Your task to perform on an android device: What's the weather? Image 0: 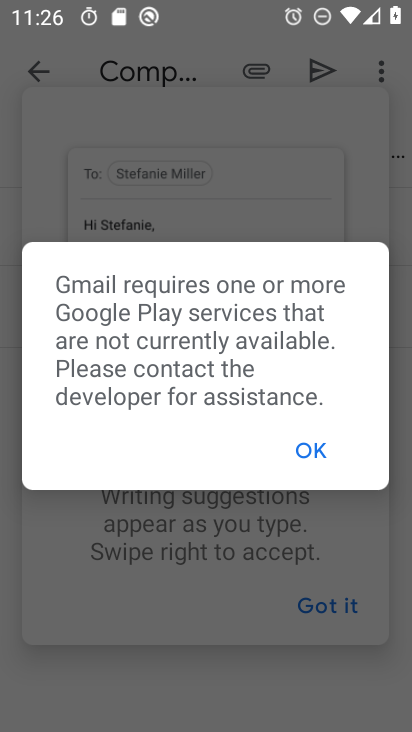
Step 0: press home button
Your task to perform on an android device: What's the weather? Image 1: 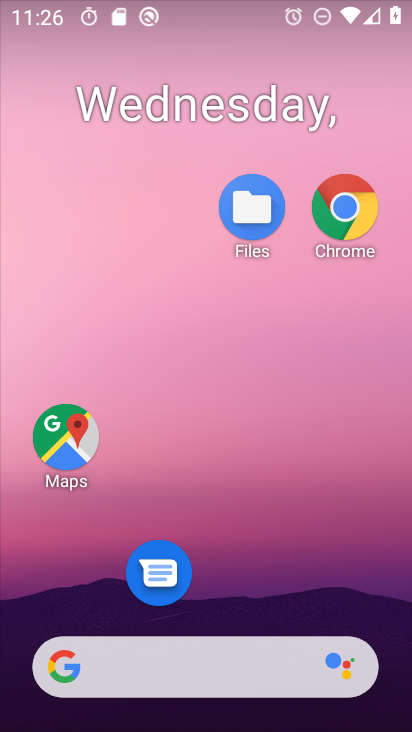
Step 1: drag from (218, 492) to (160, 45)
Your task to perform on an android device: What's the weather? Image 2: 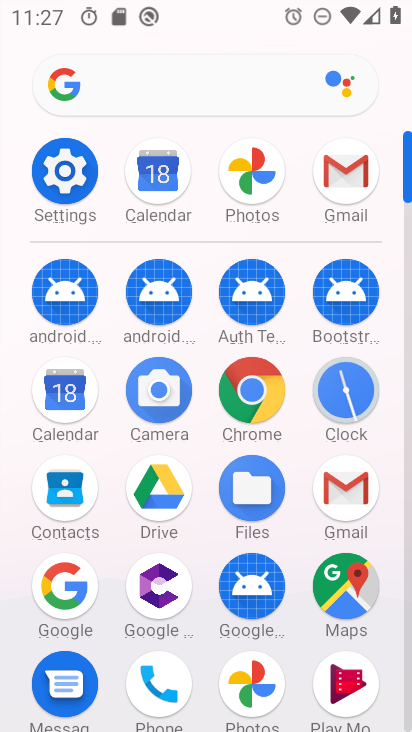
Step 2: drag from (157, 520) to (190, 220)
Your task to perform on an android device: What's the weather? Image 3: 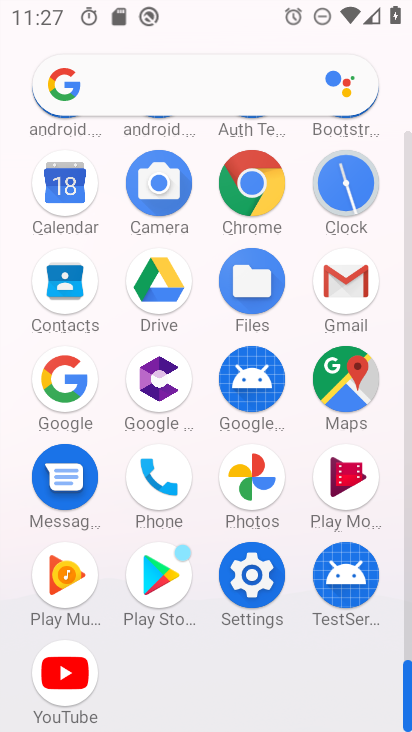
Step 3: drag from (142, 369) to (139, 615)
Your task to perform on an android device: What's the weather? Image 4: 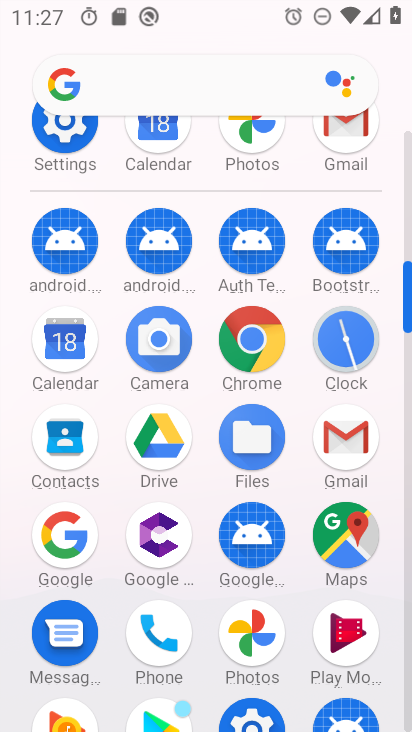
Step 4: drag from (255, 651) to (256, 577)
Your task to perform on an android device: What's the weather? Image 5: 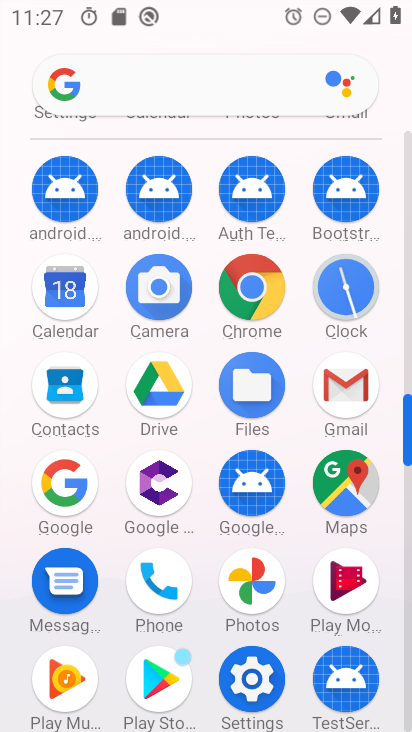
Step 5: click (82, 494)
Your task to perform on an android device: What's the weather? Image 6: 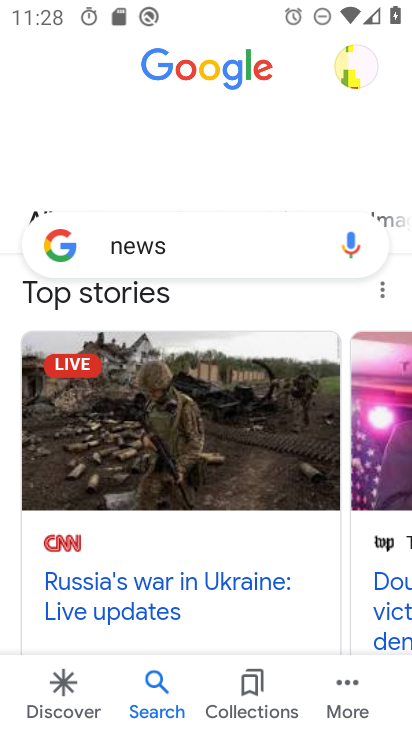
Step 6: click (251, 238)
Your task to perform on an android device: What's the weather? Image 7: 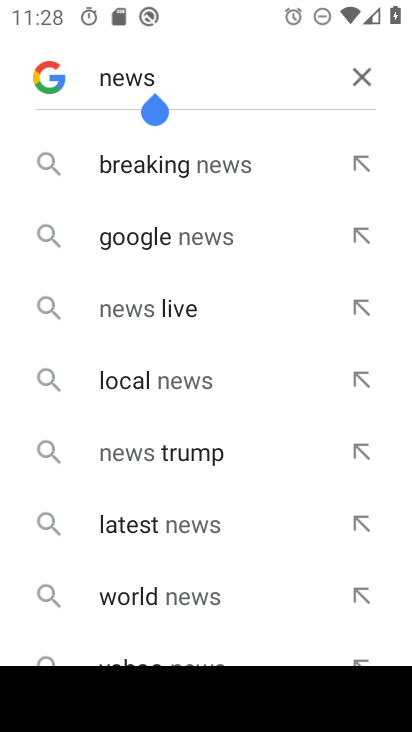
Step 7: click (360, 80)
Your task to perform on an android device: What's the weather? Image 8: 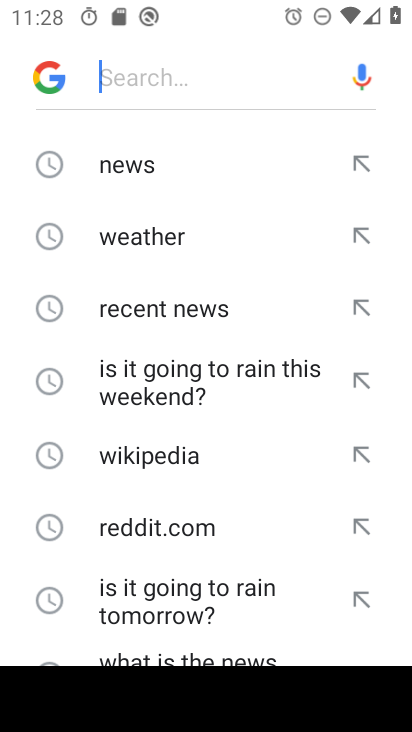
Step 8: click (191, 238)
Your task to perform on an android device: What's the weather? Image 9: 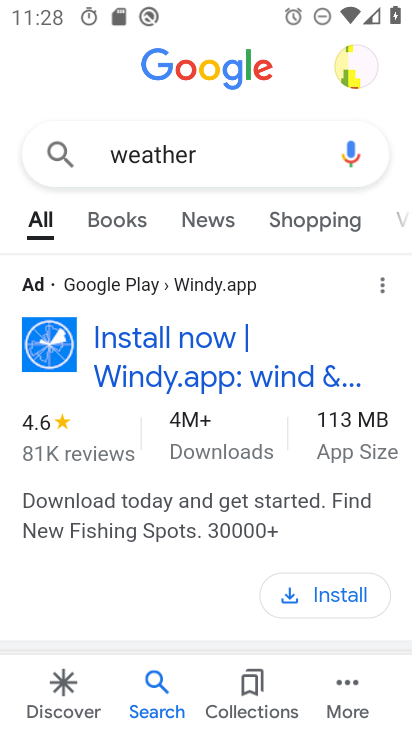
Step 9: task complete